Your task to perform on an android device: toggle show notifications on the lock screen Image 0: 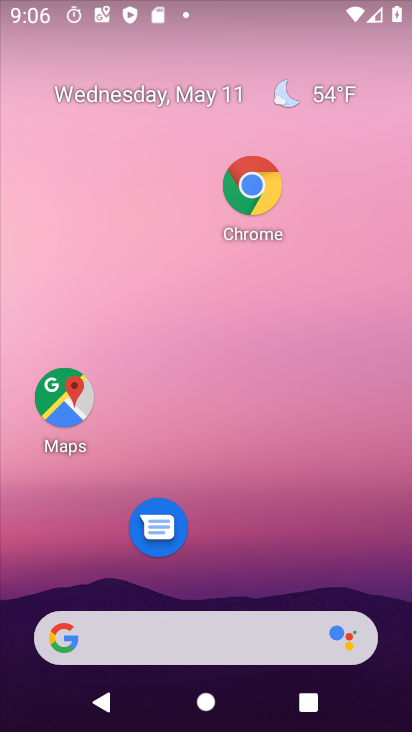
Step 0: drag from (275, 555) to (286, 41)
Your task to perform on an android device: toggle show notifications on the lock screen Image 1: 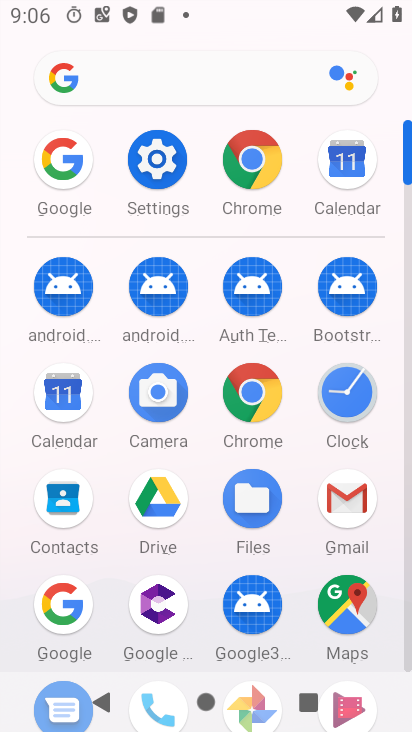
Step 1: click (152, 155)
Your task to perform on an android device: toggle show notifications on the lock screen Image 2: 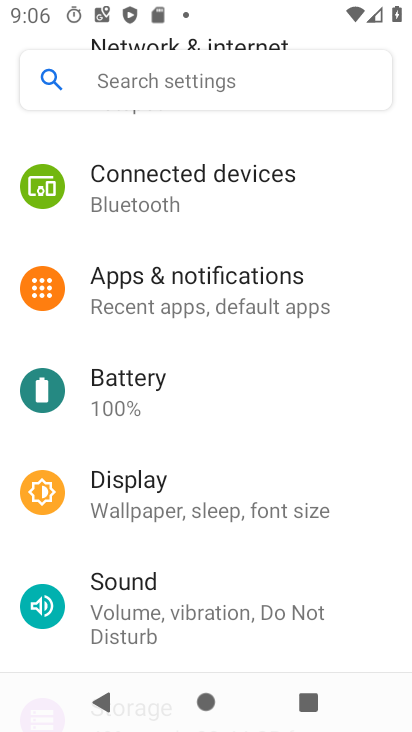
Step 2: click (193, 280)
Your task to perform on an android device: toggle show notifications on the lock screen Image 3: 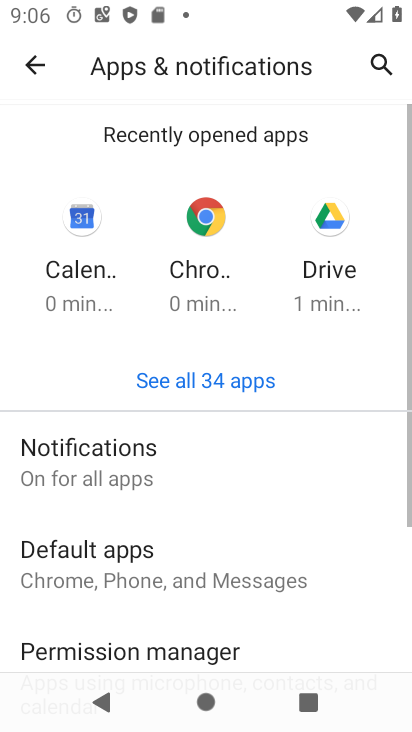
Step 3: click (158, 445)
Your task to perform on an android device: toggle show notifications on the lock screen Image 4: 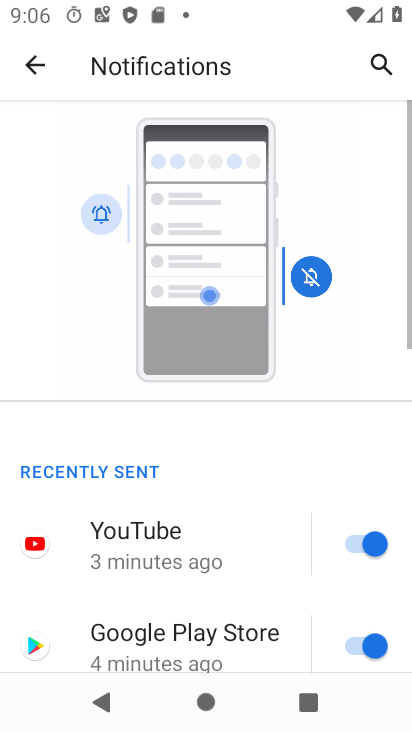
Step 4: drag from (235, 528) to (240, 7)
Your task to perform on an android device: toggle show notifications on the lock screen Image 5: 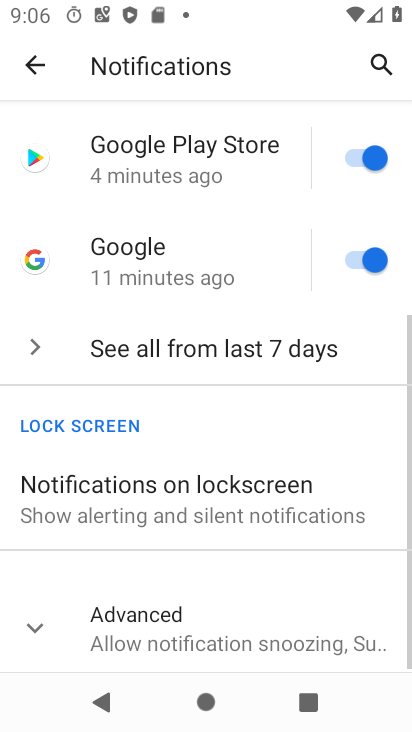
Step 5: click (180, 493)
Your task to perform on an android device: toggle show notifications on the lock screen Image 6: 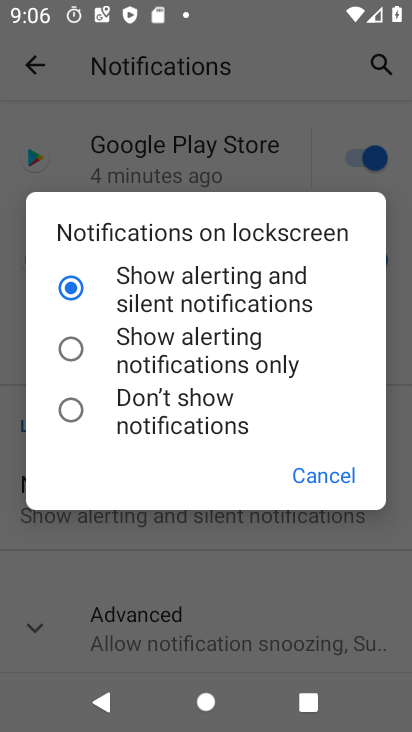
Step 6: click (69, 422)
Your task to perform on an android device: toggle show notifications on the lock screen Image 7: 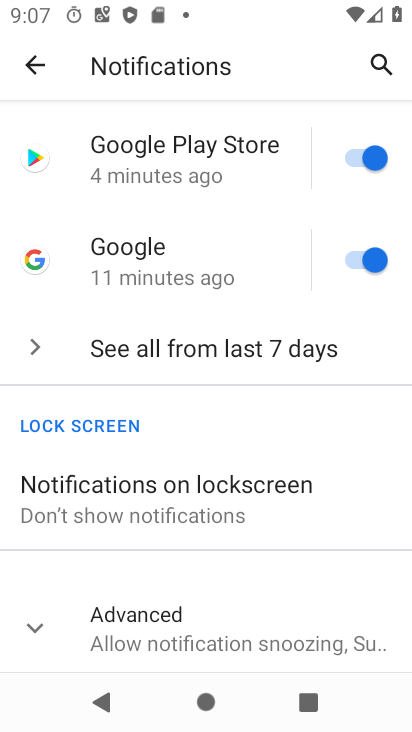
Step 7: task complete